Your task to perform on an android device: toggle javascript in the chrome app Image 0: 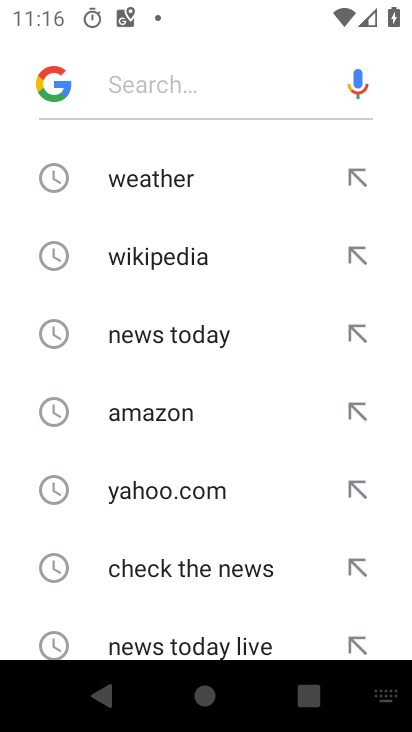
Step 0: press home button
Your task to perform on an android device: toggle javascript in the chrome app Image 1: 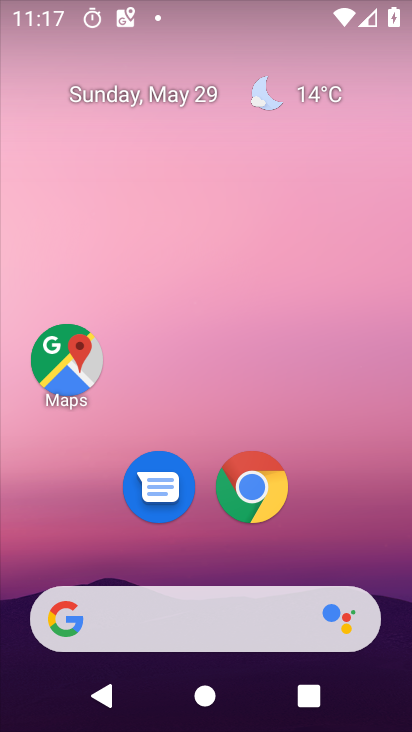
Step 1: click (255, 480)
Your task to perform on an android device: toggle javascript in the chrome app Image 2: 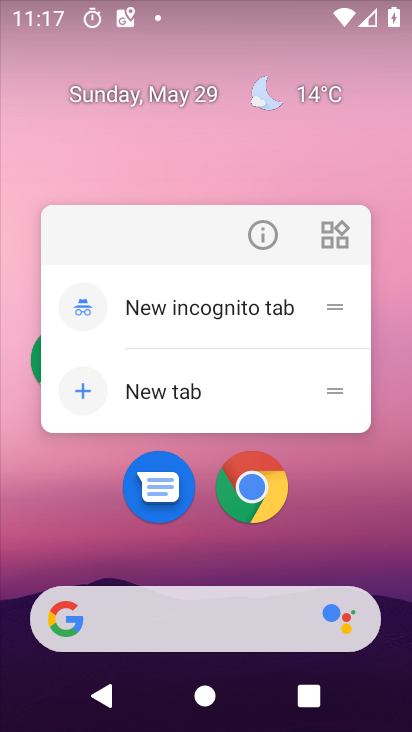
Step 2: click (255, 480)
Your task to perform on an android device: toggle javascript in the chrome app Image 3: 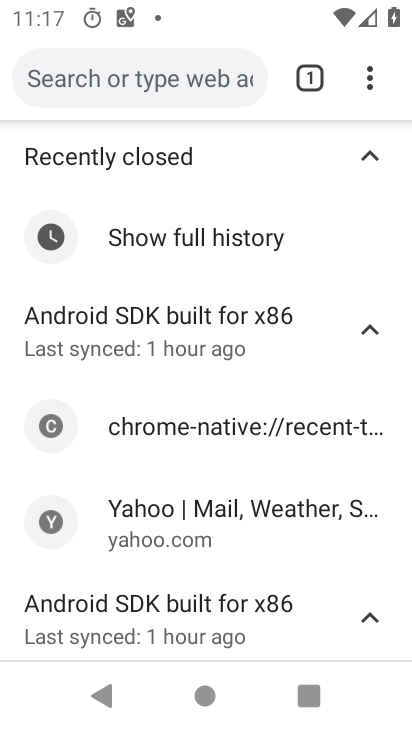
Step 3: click (369, 75)
Your task to perform on an android device: toggle javascript in the chrome app Image 4: 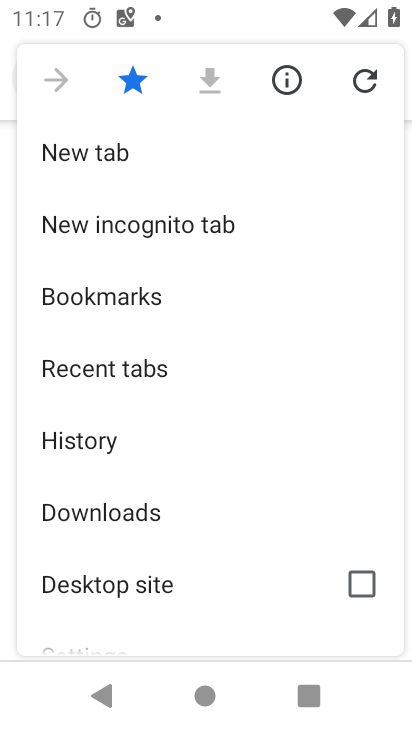
Step 4: click (369, 74)
Your task to perform on an android device: toggle javascript in the chrome app Image 5: 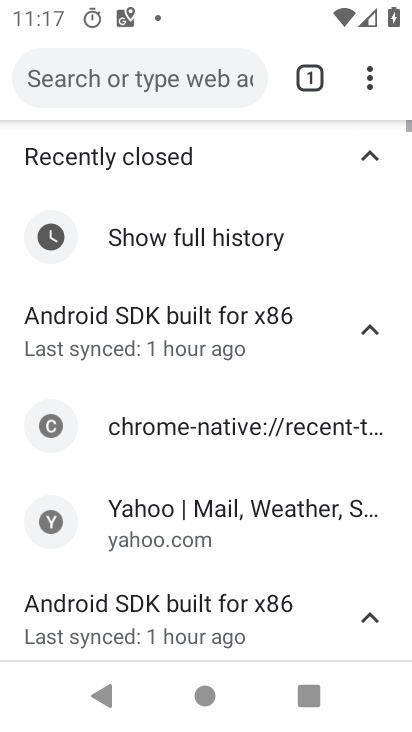
Step 5: click (369, 74)
Your task to perform on an android device: toggle javascript in the chrome app Image 6: 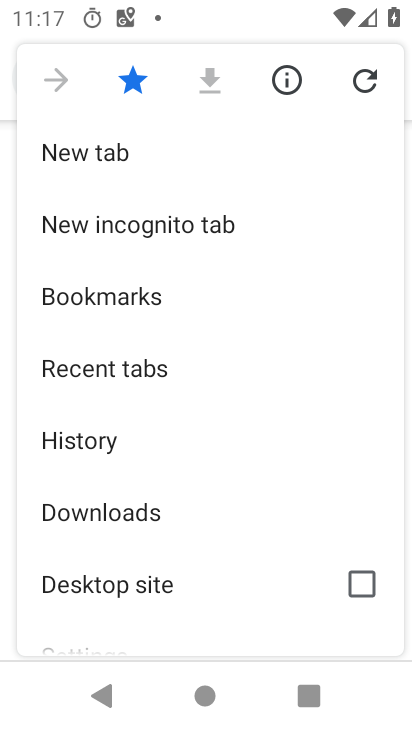
Step 6: drag from (246, 619) to (166, 213)
Your task to perform on an android device: toggle javascript in the chrome app Image 7: 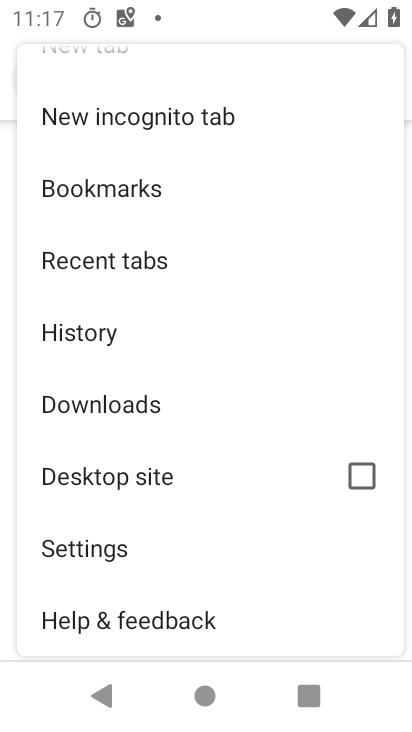
Step 7: click (57, 538)
Your task to perform on an android device: toggle javascript in the chrome app Image 8: 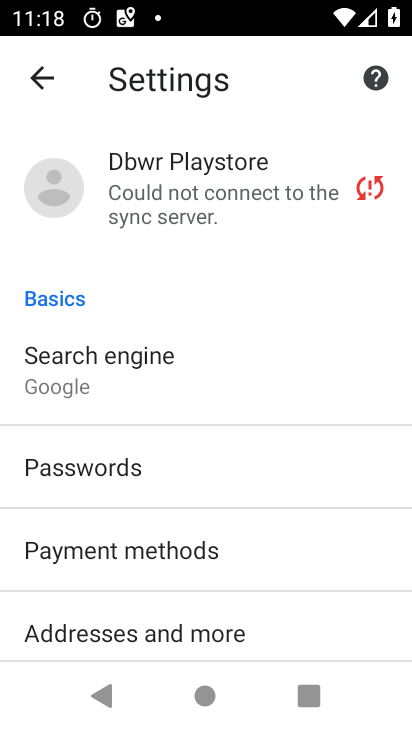
Step 8: drag from (335, 644) to (234, 195)
Your task to perform on an android device: toggle javascript in the chrome app Image 9: 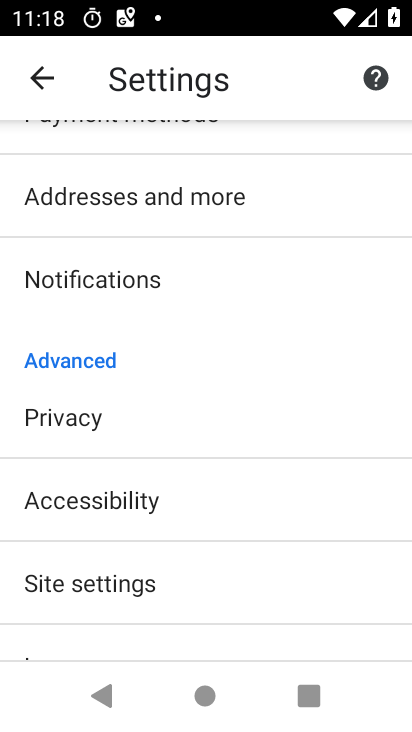
Step 9: click (103, 575)
Your task to perform on an android device: toggle javascript in the chrome app Image 10: 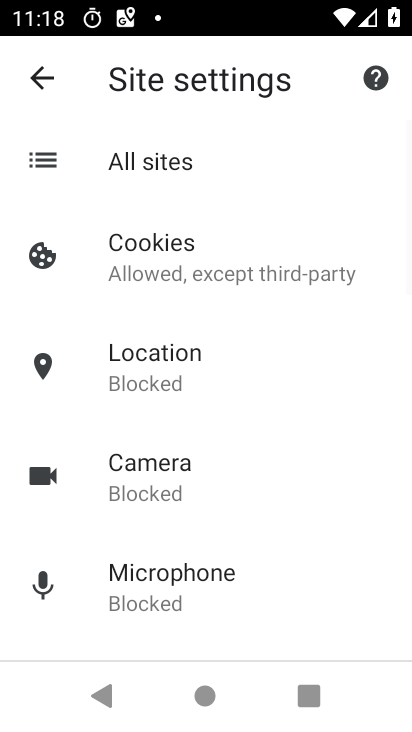
Step 10: drag from (314, 622) to (303, 208)
Your task to perform on an android device: toggle javascript in the chrome app Image 11: 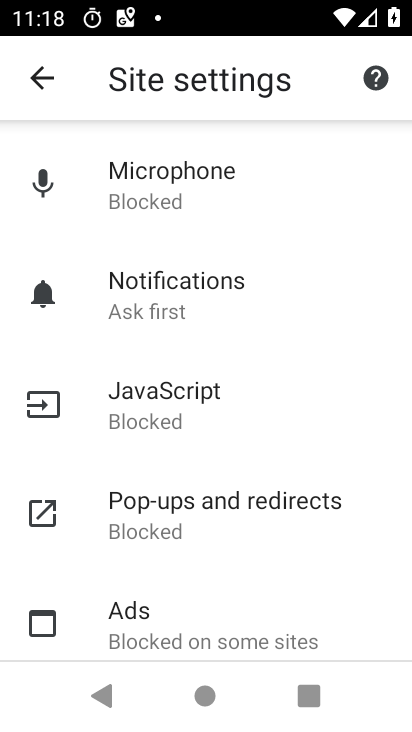
Step 11: drag from (182, 606) to (183, 391)
Your task to perform on an android device: toggle javascript in the chrome app Image 12: 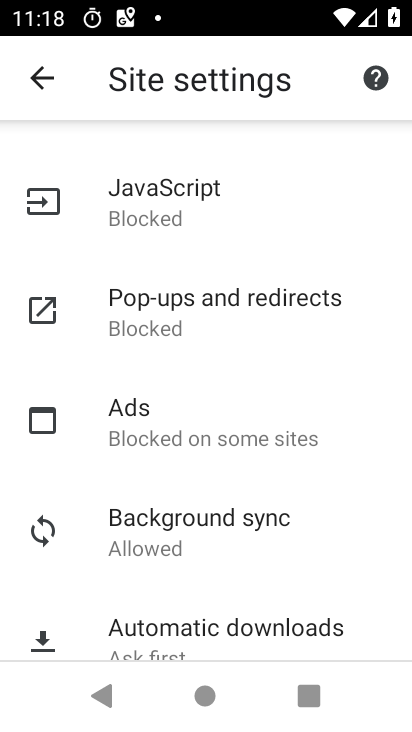
Step 12: click (119, 212)
Your task to perform on an android device: toggle javascript in the chrome app Image 13: 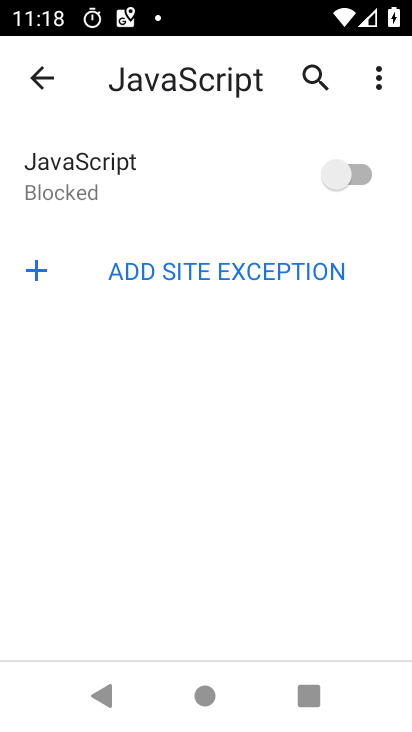
Step 13: click (354, 174)
Your task to perform on an android device: toggle javascript in the chrome app Image 14: 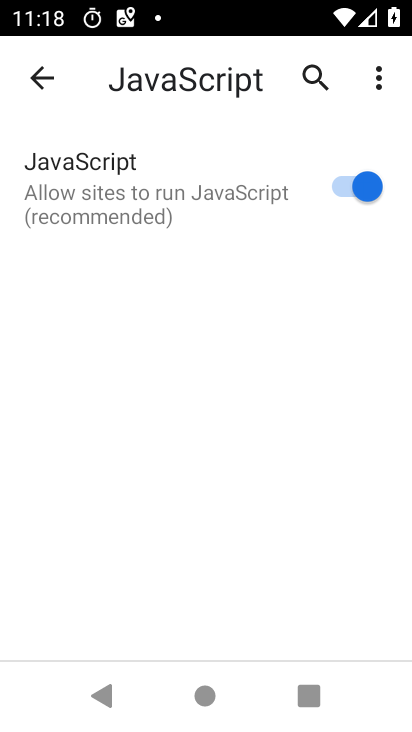
Step 14: task complete